Your task to perform on an android device: What is the recent news? Image 0: 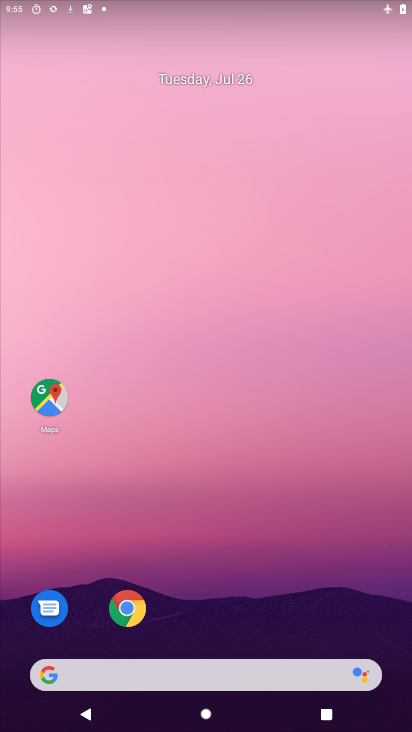
Step 0: drag from (180, 591) to (197, 199)
Your task to perform on an android device: What is the recent news? Image 1: 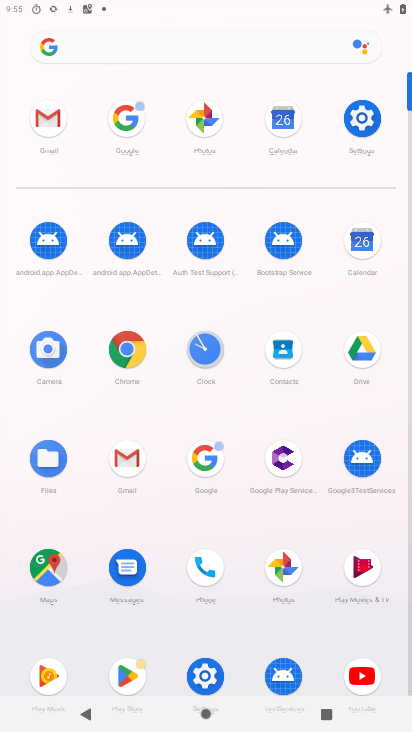
Step 1: click (198, 458)
Your task to perform on an android device: What is the recent news? Image 2: 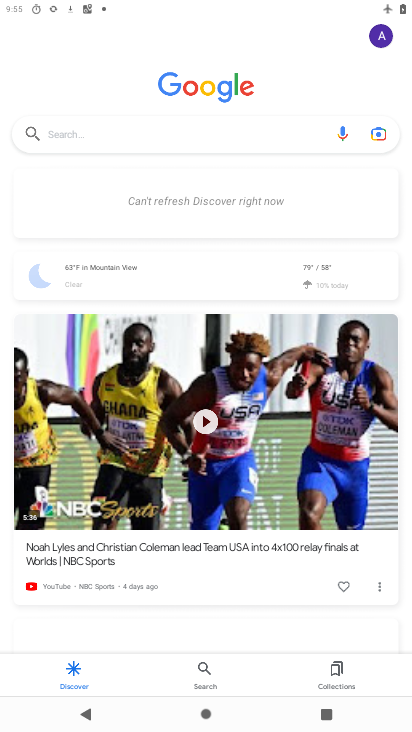
Step 2: click (123, 135)
Your task to perform on an android device: What is the recent news? Image 3: 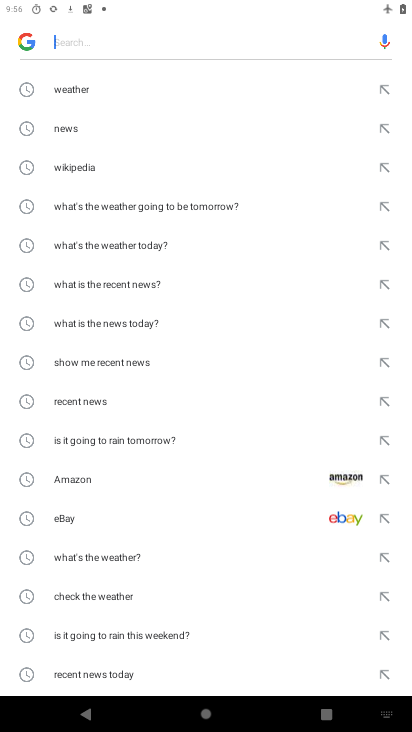
Step 3: click (95, 125)
Your task to perform on an android device: What is the recent news? Image 4: 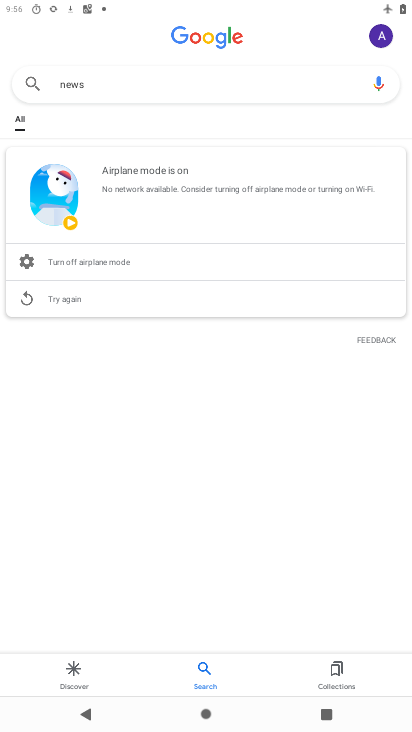
Step 4: task complete